Your task to perform on an android device: Check the news Image 0: 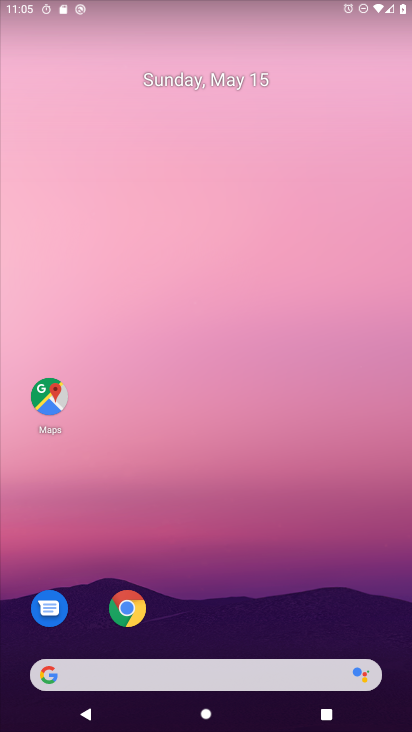
Step 0: drag from (288, 571) to (347, 110)
Your task to perform on an android device: Check the news Image 1: 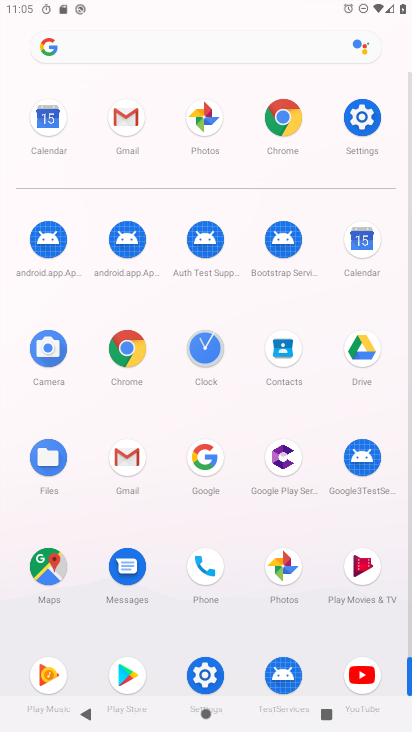
Step 1: click (124, 350)
Your task to perform on an android device: Check the news Image 2: 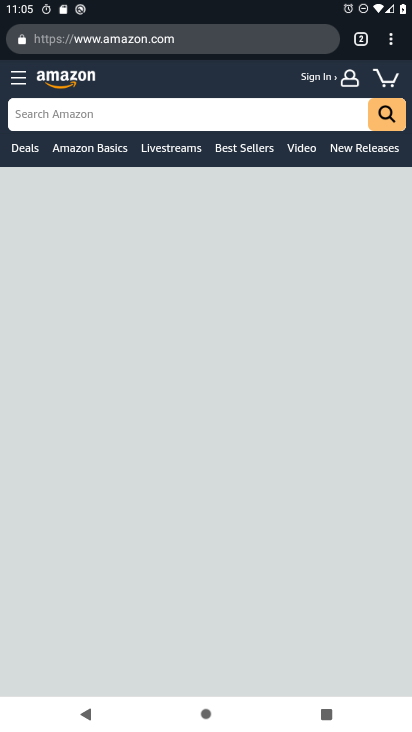
Step 2: click (176, 44)
Your task to perform on an android device: Check the news Image 3: 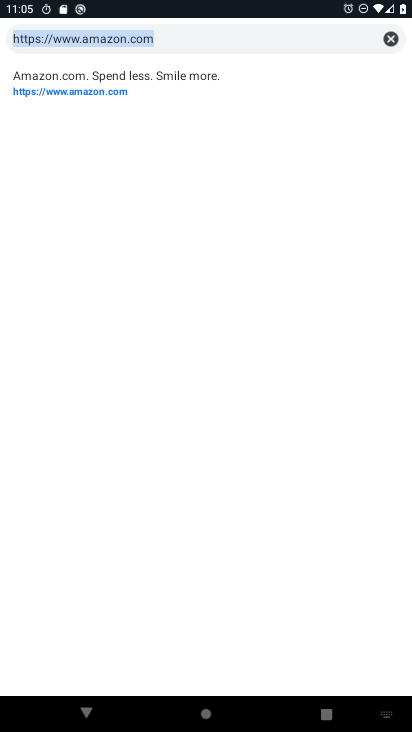
Step 3: click (383, 36)
Your task to perform on an android device: Check the news Image 4: 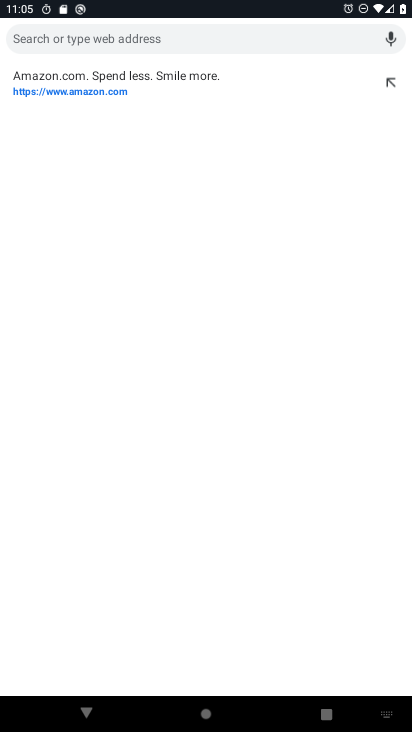
Step 4: type "check the news"
Your task to perform on an android device: Check the news Image 5: 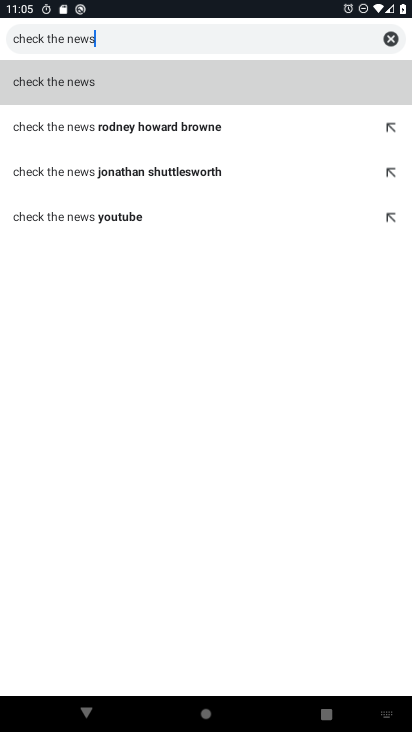
Step 5: click (102, 89)
Your task to perform on an android device: Check the news Image 6: 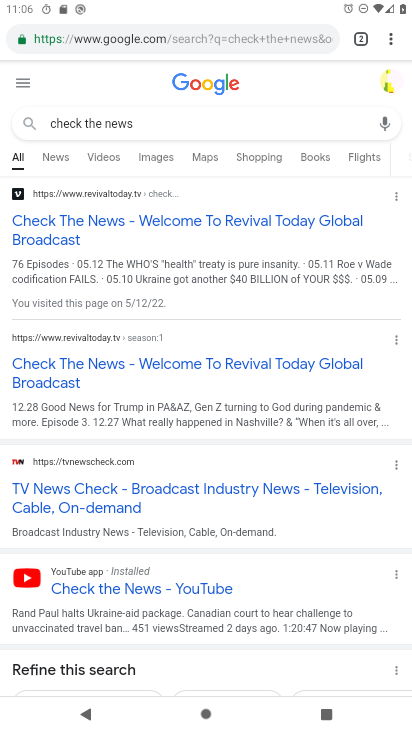
Step 6: click (136, 220)
Your task to perform on an android device: Check the news Image 7: 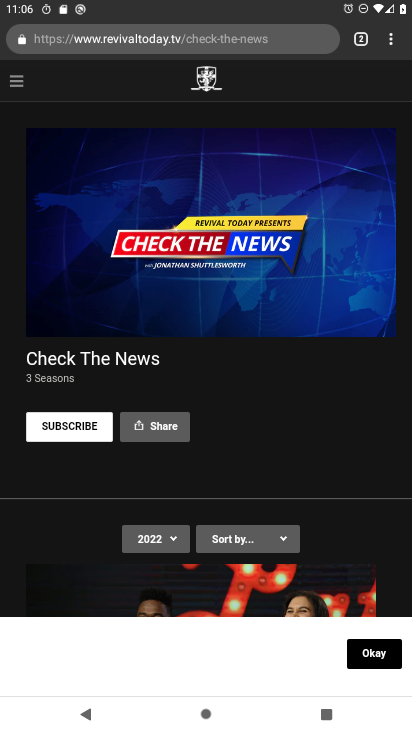
Step 7: task complete